Your task to perform on an android device: turn notification dots on Image 0: 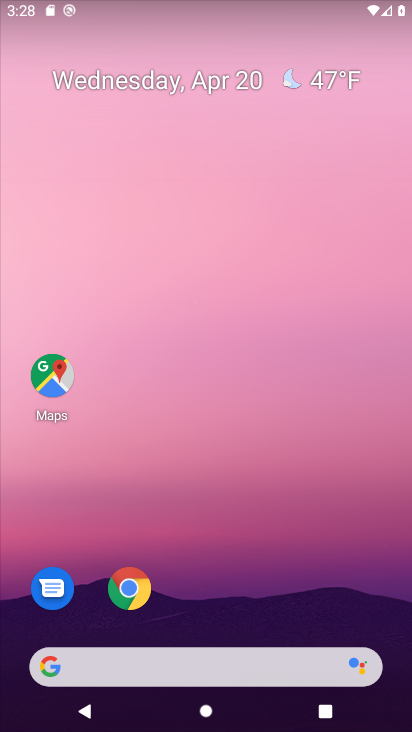
Step 0: drag from (259, 618) to (287, 20)
Your task to perform on an android device: turn notification dots on Image 1: 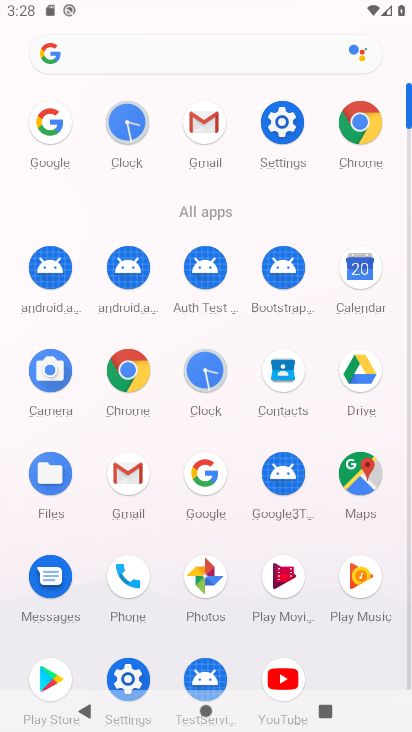
Step 1: click (285, 115)
Your task to perform on an android device: turn notification dots on Image 2: 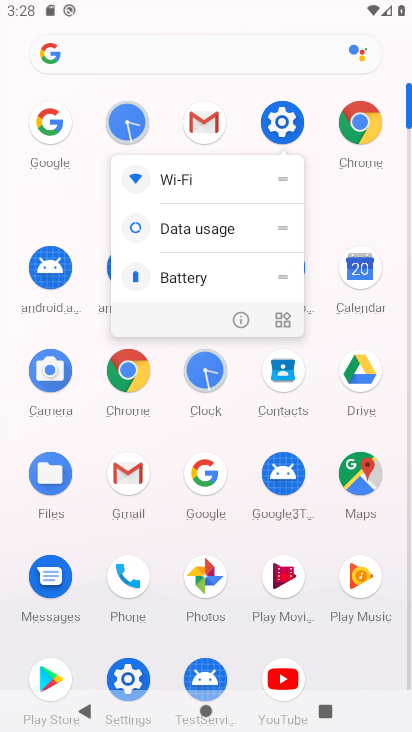
Step 2: click (288, 118)
Your task to perform on an android device: turn notification dots on Image 3: 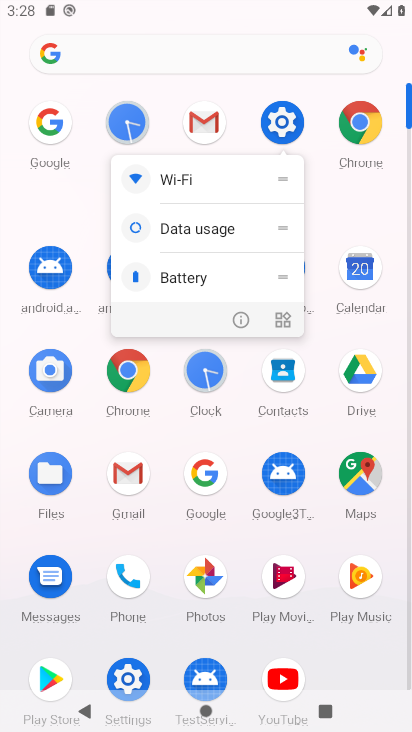
Step 3: click (288, 118)
Your task to perform on an android device: turn notification dots on Image 4: 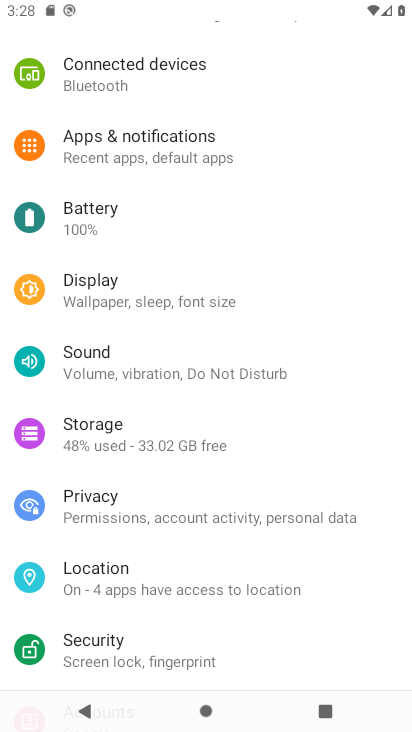
Step 4: click (155, 161)
Your task to perform on an android device: turn notification dots on Image 5: 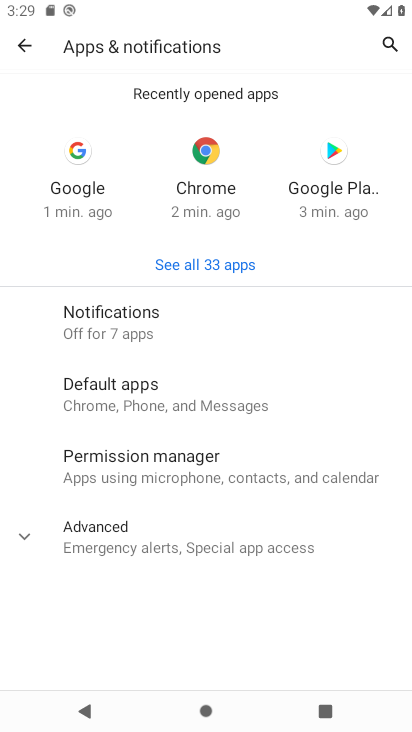
Step 5: click (106, 325)
Your task to perform on an android device: turn notification dots on Image 6: 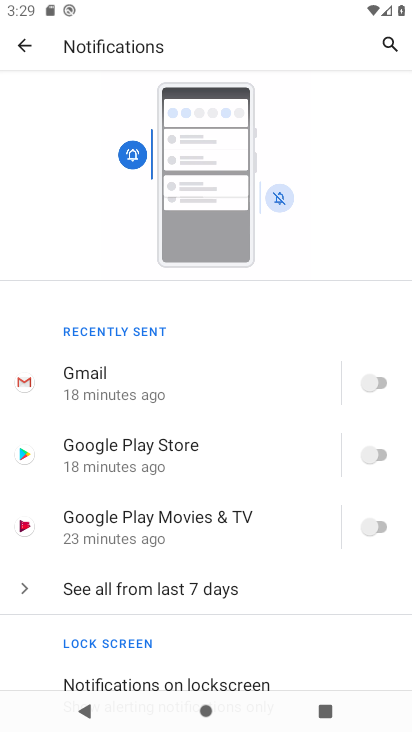
Step 6: drag from (153, 547) to (178, 358)
Your task to perform on an android device: turn notification dots on Image 7: 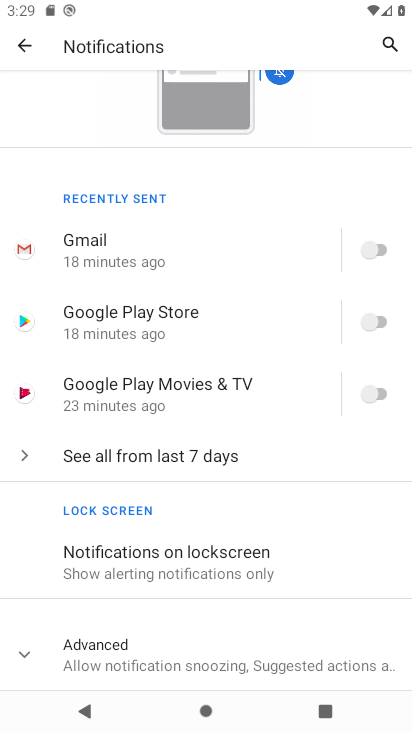
Step 7: click (146, 646)
Your task to perform on an android device: turn notification dots on Image 8: 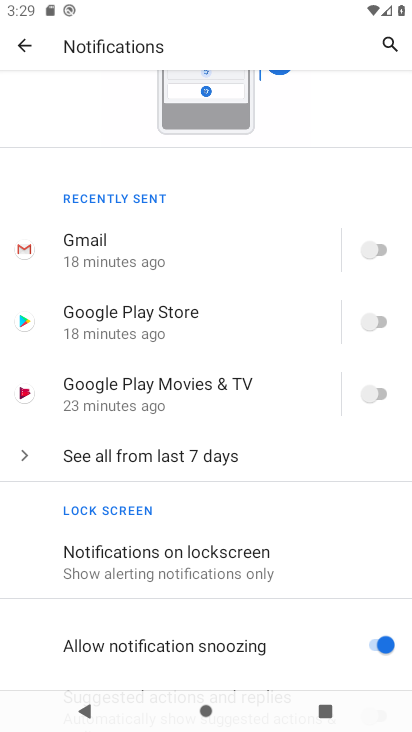
Step 8: drag from (135, 631) to (174, 387)
Your task to perform on an android device: turn notification dots on Image 9: 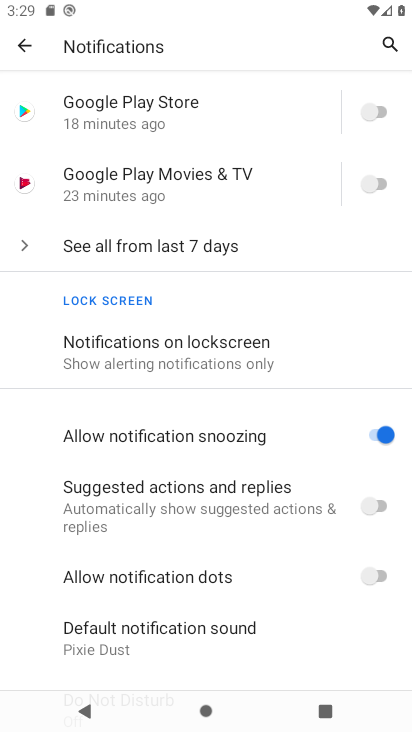
Step 9: click (382, 578)
Your task to perform on an android device: turn notification dots on Image 10: 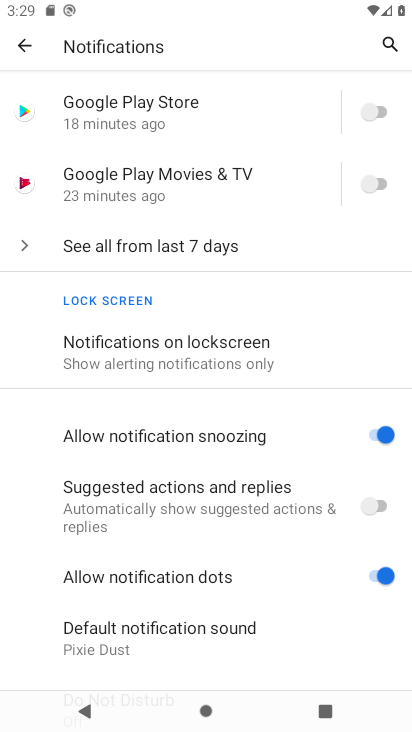
Step 10: task complete